Your task to perform on an android device: Open the Play Movies app and select the watchlist tab. Image 0: 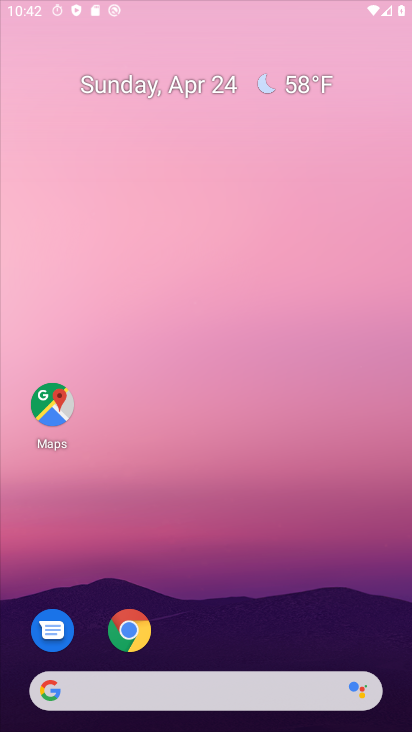
Step 0: drag from (254, 584) to (284, 135)
Your task to perform on an android device: Open the Play Movies app and select the watchlist tab. Image 1: 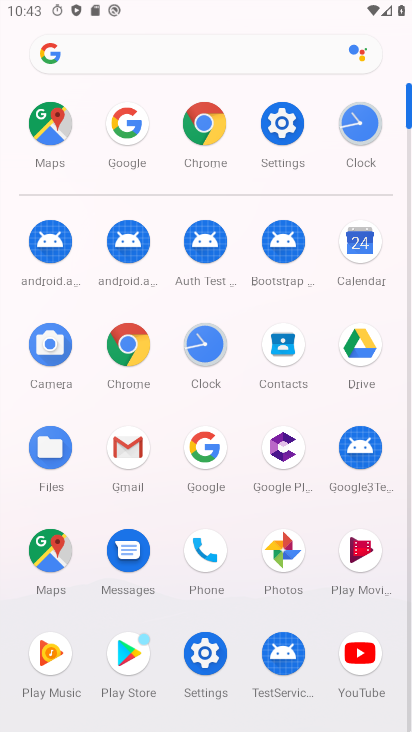
Step 1: drag from (283, 507) to (363, 170)
Your task to perform on an android device: Open the Play Movies app and select the watchlist tab. Image 2: 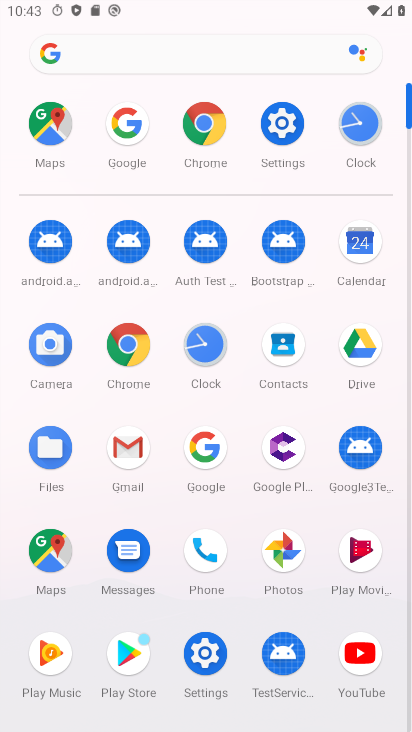
Step 2: click (371, 535)
Your task to perform on an android device: Open the Play Movies app and select the watchlist tab. Image 3: 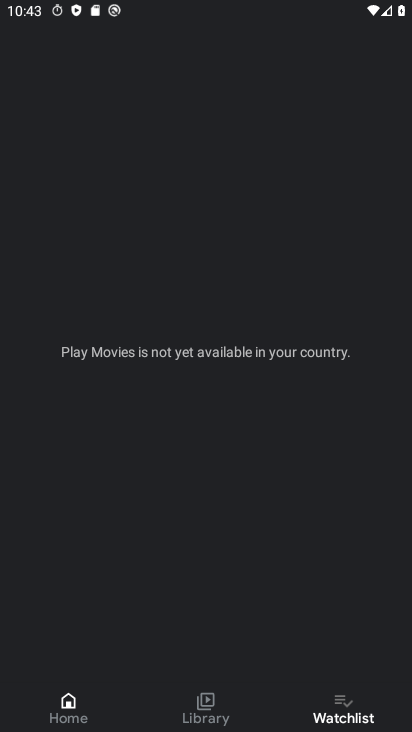
Step 3: click (340, 691)
Your task to perform on an android device: Open the Play Movies app and select the watchlist tab. Image 4: 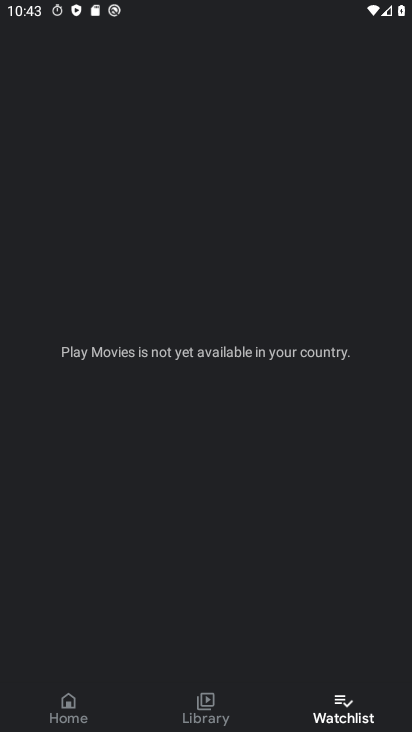
Step 4: task complete